Your task to perform on an android device: turn on priority inbox in the gmail app Image 0: 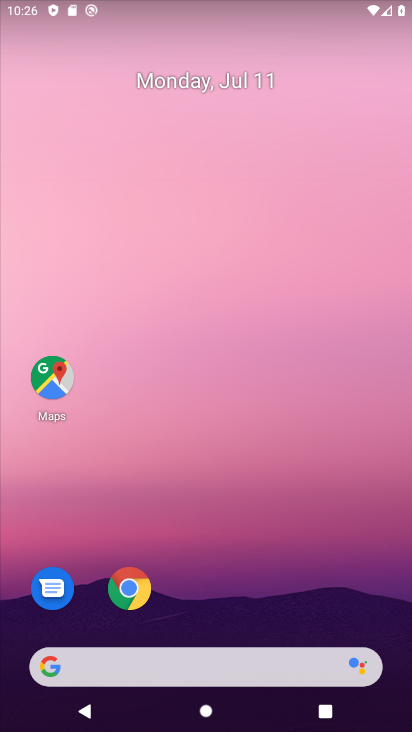
Step 0: drag from (261, 550) to (241, 116)
Your task to perform on an android device: turn on priority inbox in the gmail app Image 1: 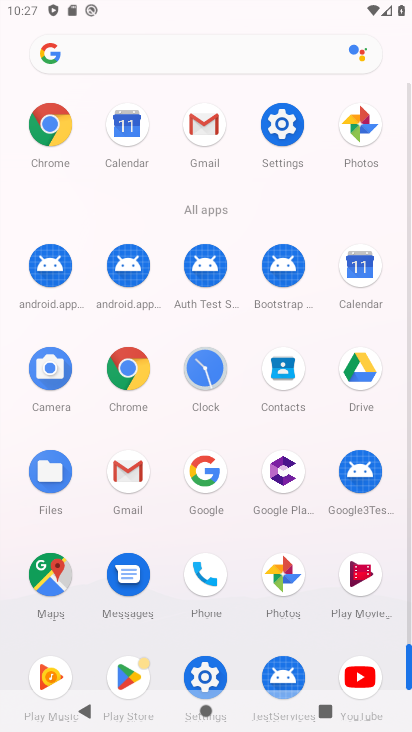
Step 1: click (122, 471)
Your task to perform on an android device: turn on priority inbox in the gmail app Image 2: 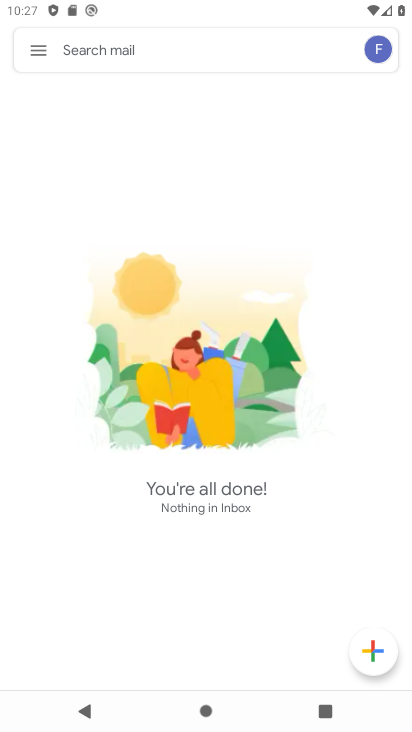
Step 2: click (37, 45)
Your task to perform on an android device: turn on priority inbox in the gmail app Image 3: 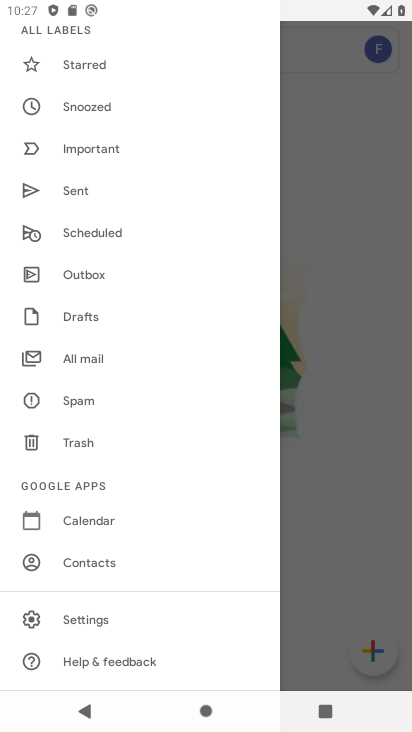
Step 3: click (92, 616)
Your task to perform on an android device: turn on priority inbox in the gmail app Image 4: 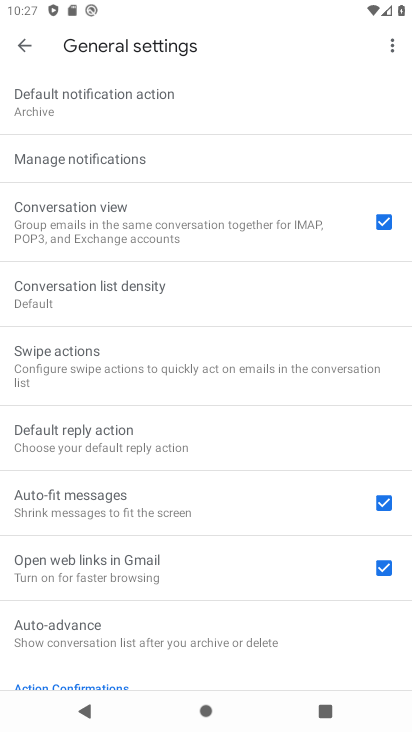
Step 4: click (26, 45)
Your task to perform on an android device: turn on priority inbox in the gmail app Image 5: 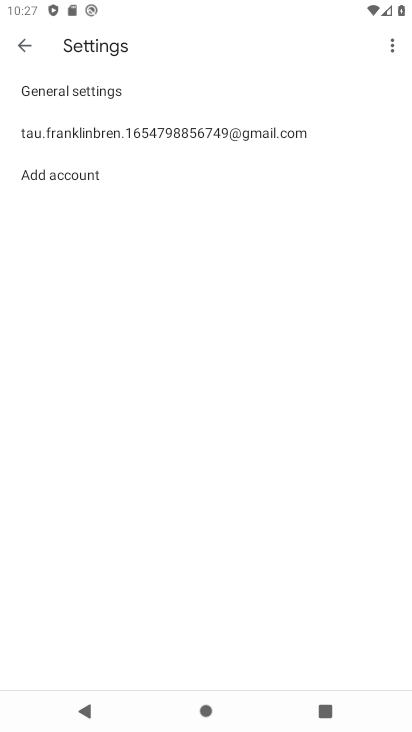
Step 5: click (82, 132)
Your task to perform on an android device: turn on priority inbox in the gmail app Image 6: 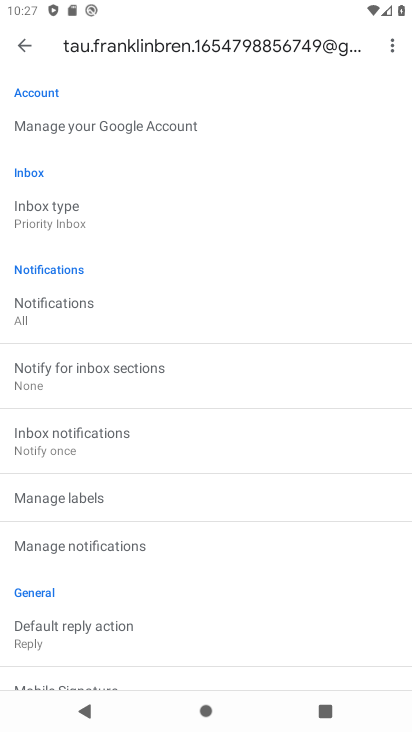
Step 6: click (49, 207)
Your task to perform on an android device: turn on priority inbox in the gmail app Image 7: 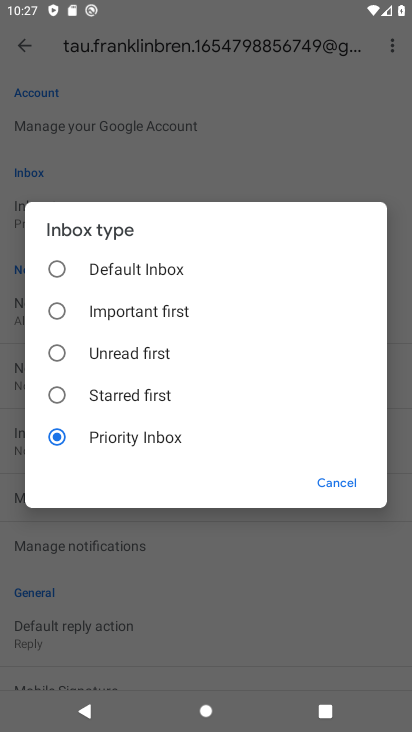
Step 7: task complete